Your task to perform on an android device: snooze an email in the gmail app Image 0: 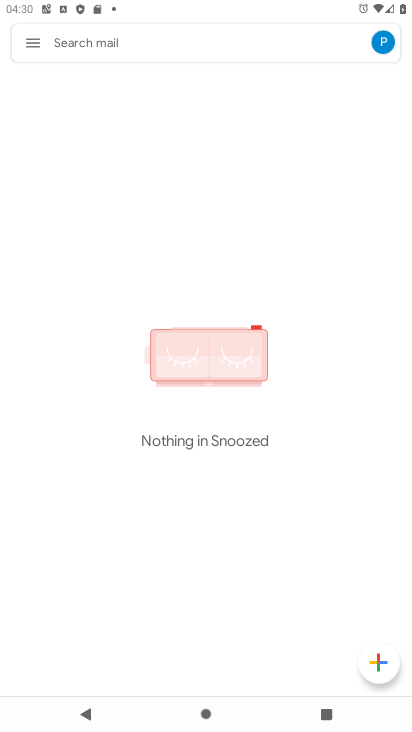
Step 0: click (24, 40)
Your task to perform on an android device: snooze an email in the gmail app Image 1: 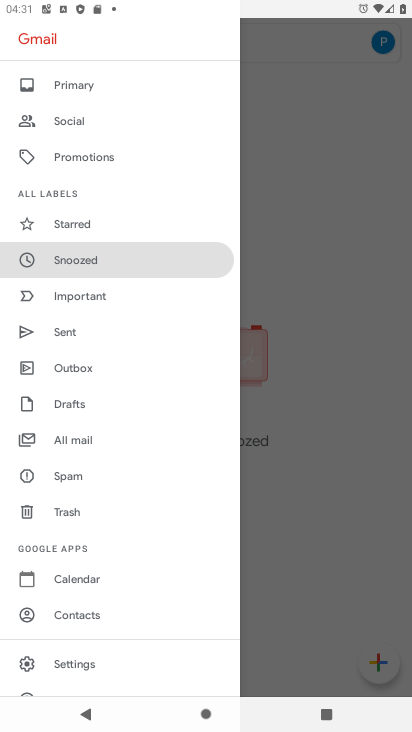
Step 1: task complete